Your task to perform on an android device: turn on airplane mode Image 0: 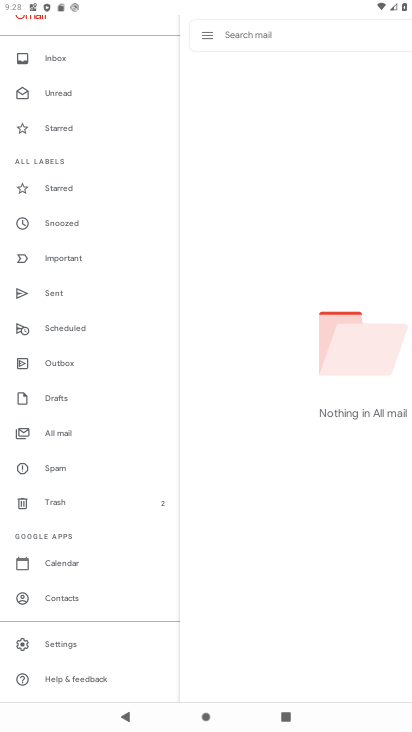
Step 0: press home button
Your task to perform on an android device: turn on airplane mode Image 1: 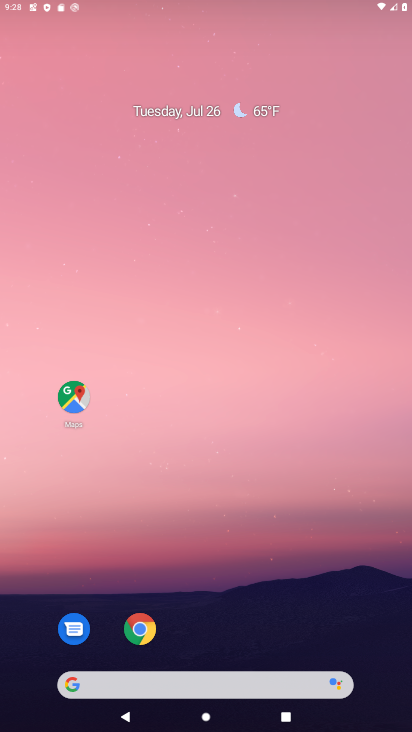
Step 1: drag from (288, 576) to (249, 3)
Your task to perform on an android device: turn on airplane mode Image 2: 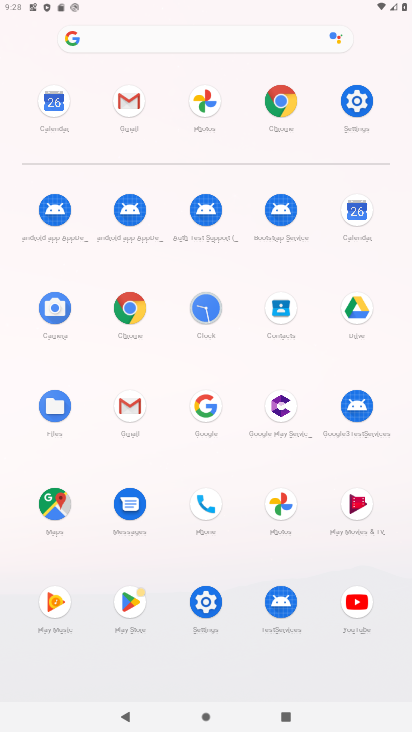
Step 2: click (356, 107)
Your task to perform on an android device: turn on airplane mode Image 3: 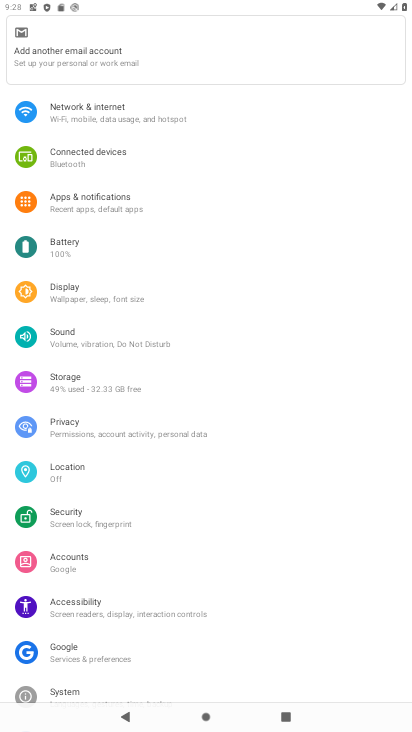
Step 3: click (117, 120)
Your task to perform on an android device: turn on airplane mode Image 4: 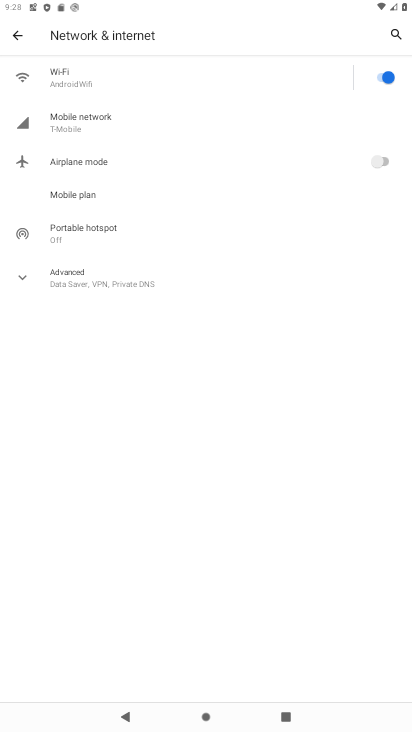
Step 4: click (380, 159)
Your task to perform on an android device: turn on airplane mode Image 5: 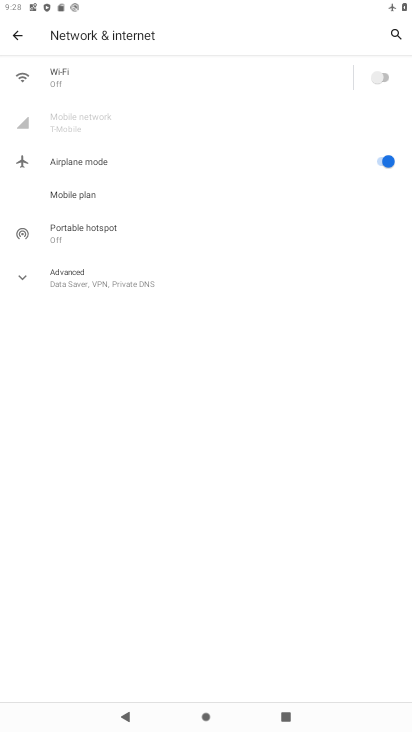
Step 5: task complete